Your task to perform on an android device: Open Google Maps Image 0: 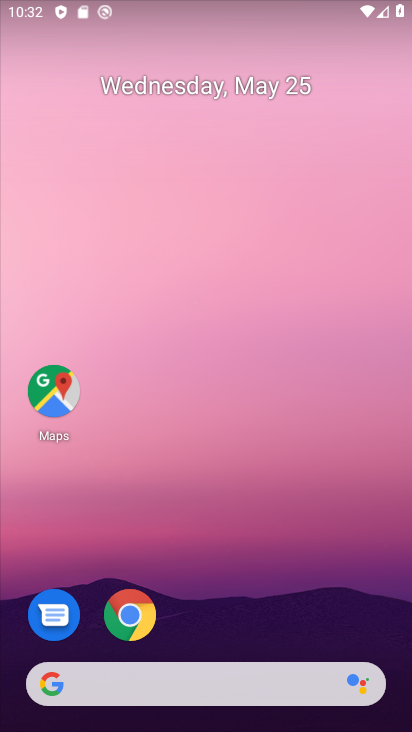
Step 0: click (60, 388)
Your task to perform on an android device: Open Google Maps Image 1: 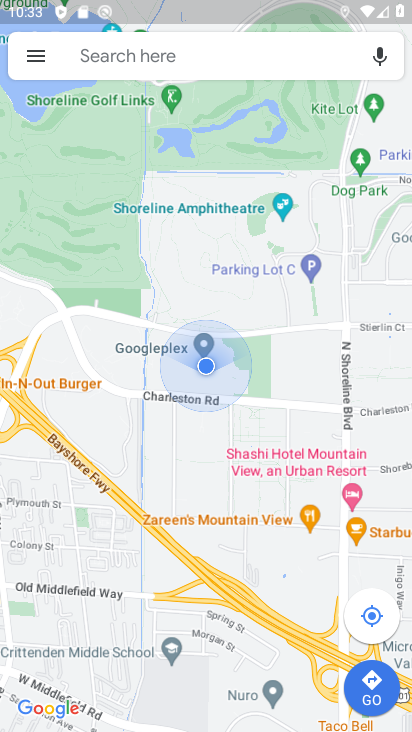
Step 1: task complete